Your task to perform on an android device: Open Google Chrome and open the bookmarks view Image 0: 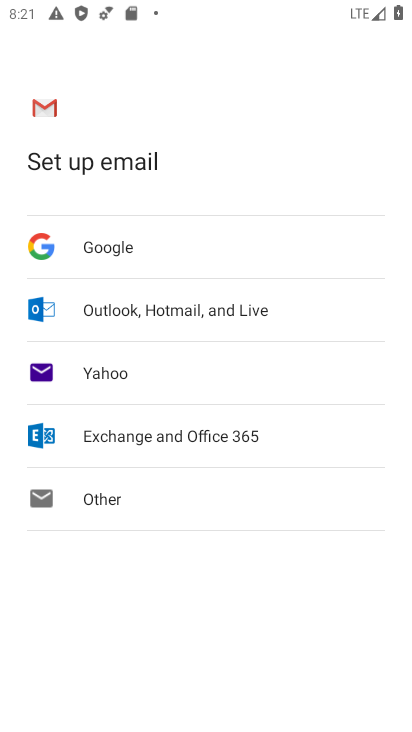
Step 0: press home button
Your task to perform on an android device: Open Google Chrome and open the bookmarks view Image 1: 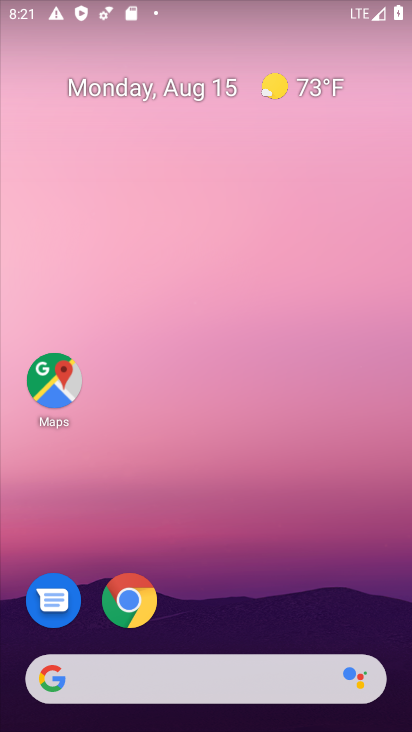
Step 1: click (125, 593)
Your task to perform on an android device: Open Google Chrome and open the bookmarks view Image 2: 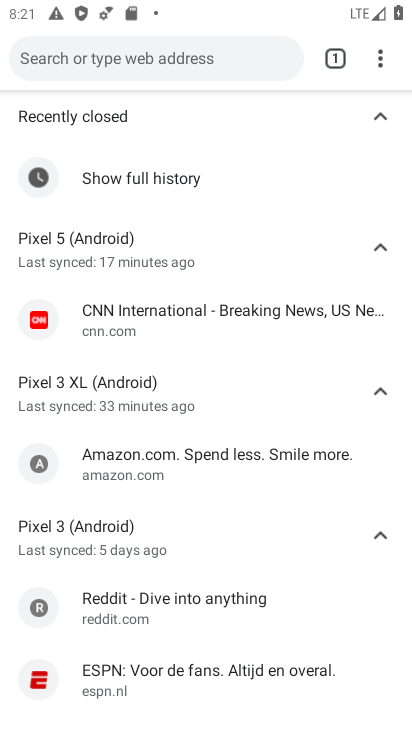
Step 2: click (381, 63)
Your task to perform on an android device: Open Google Chrome and open the bookmarks view Image 3: 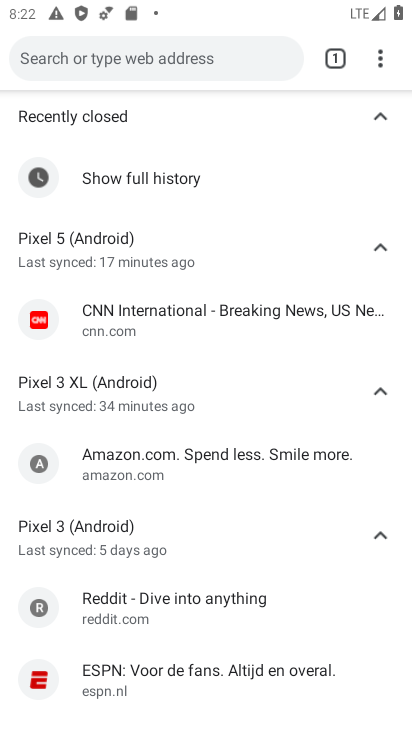
Step 3: task complete